Your task to perform on an android device: change timer sound Image 0: 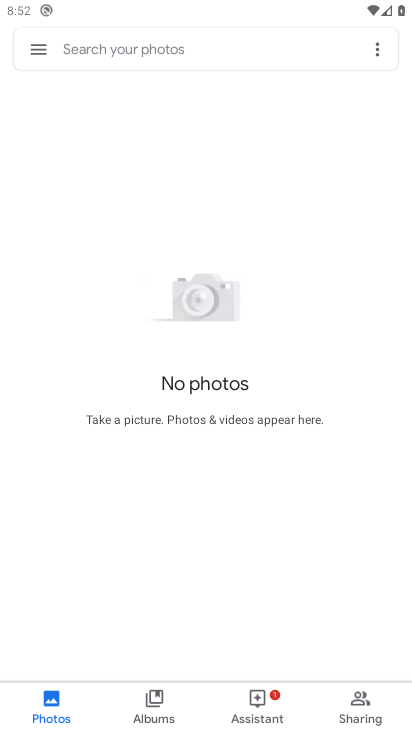
Step 0: press home button
Your task to perform on an android device: change timer sound Image 1: 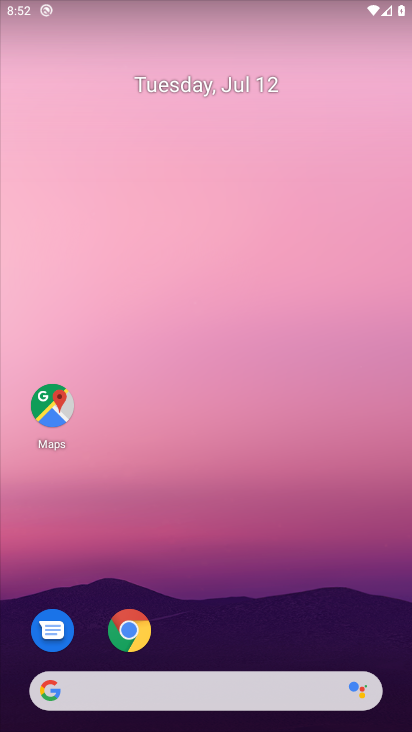
Step 1: drag from (295, 606) to (323, 51)
Your task to perform on an android device: change timer sound Image 2: 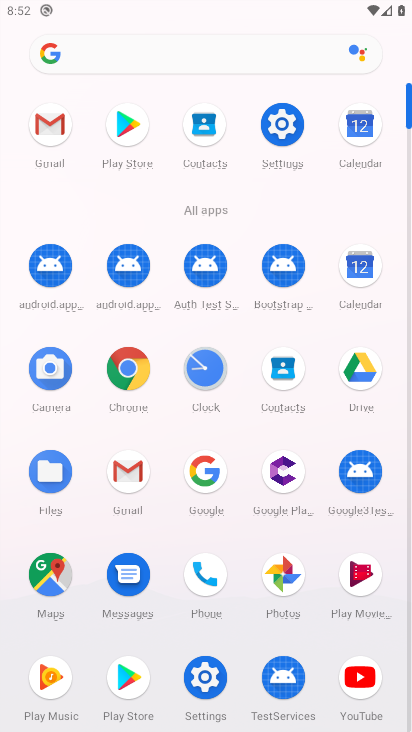
Step 2: drag from (286, 518) to (296, 51)
Your task to perform on an android device: change timer sound Image 3: 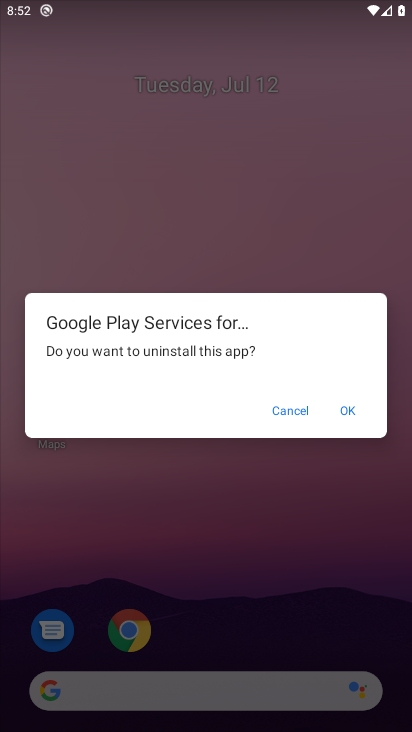
Step 3: click (262, 582)
Your task to perform on an android device: change timer sound Image 4: 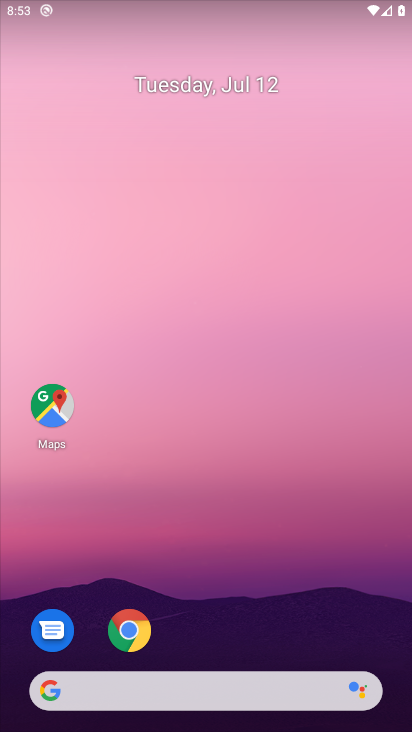
Step 4: drag from (261, 621) to (279, 132)
Your task to perform on an android device: change timer sound Image 5: 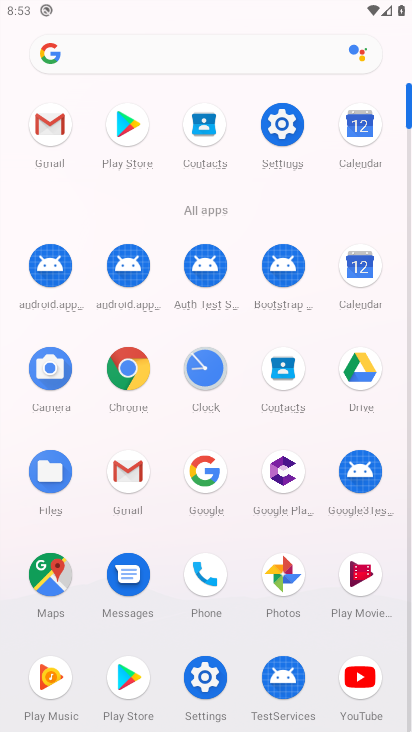
Step 5: click (196, 381)
Your task to perform on an android device: change timer sound Image 6: 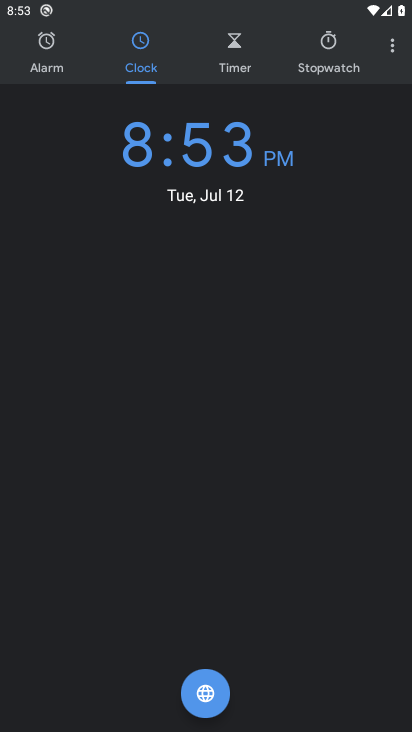
Step 6: click (394, 48)
Your task to perform on an android device: change timer sound Image 7: 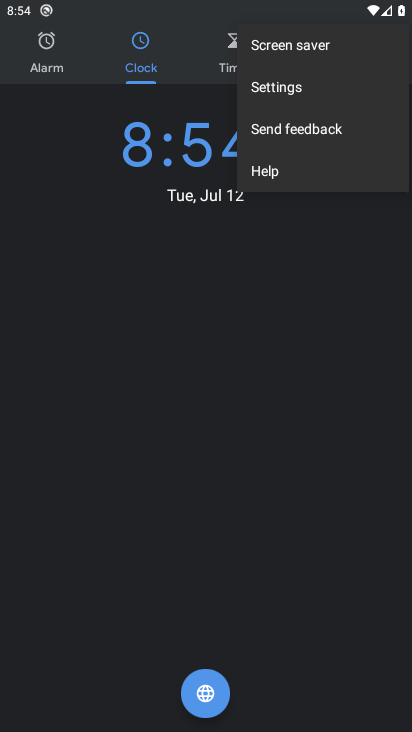
Step 7: click (277, 91)
Your task to perform on an android device: change timer sound Image 8: 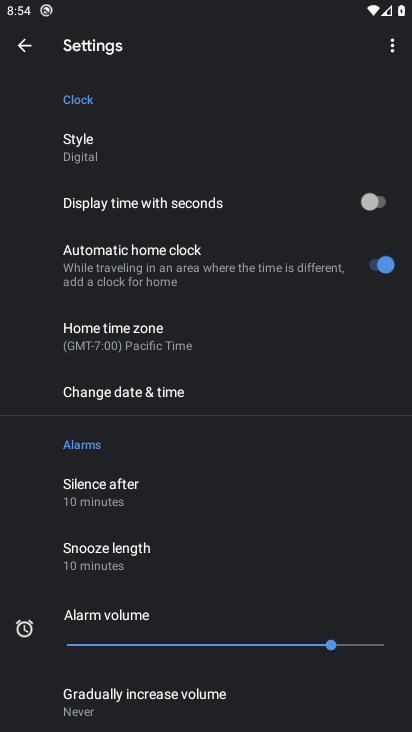
Step 8: drag from (247, 549) to (160, 206)
Your task to perform on an android device: change timer sound Image 9: 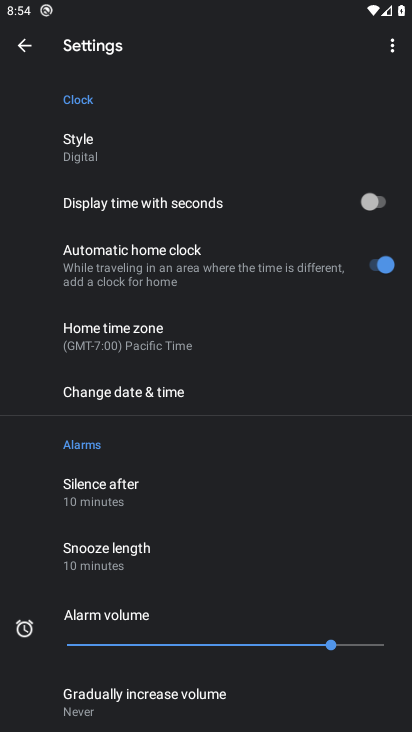
Step 9: drag from (359, 570) to (274, 121)
Your task to perform on an android device: change timer sound Image 10: 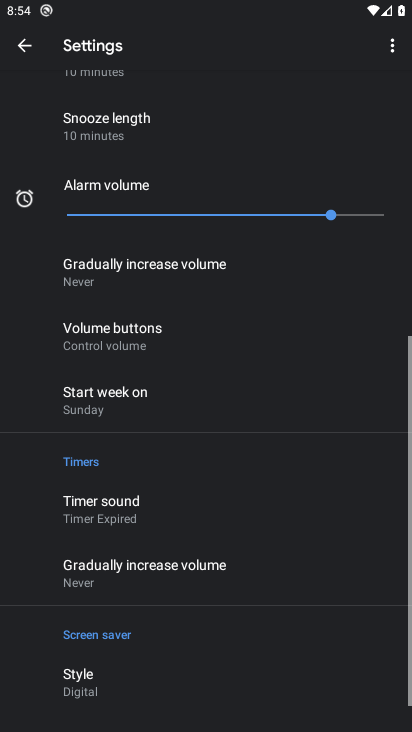
Step 10: drag from (304, 582) to (314, 157)
Your task to perform on an android device: change timer sound Image 11: 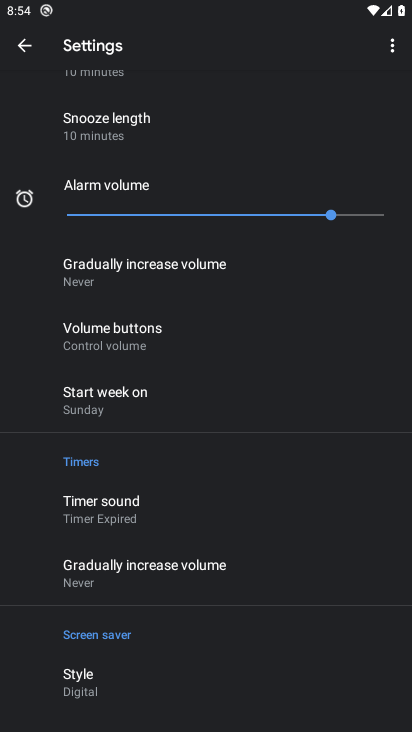
Step 11: click (103, 513)
Your task to perform on an android device: change timer sound Image 12: 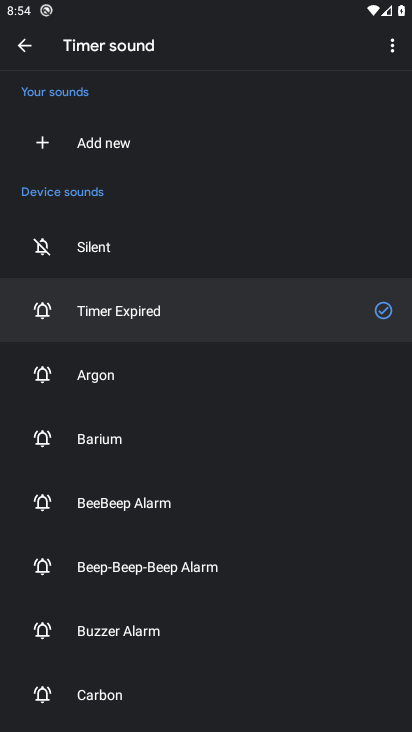
Step 12: click (70, 378)
Your task to perform on an android device: change timer sound Image 13: 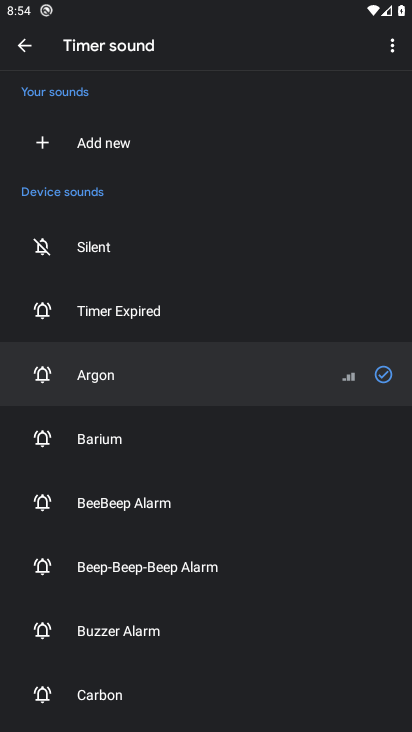
Step 13: task complete